Your task to perform on an android device: toggle sleep mode Image 0: 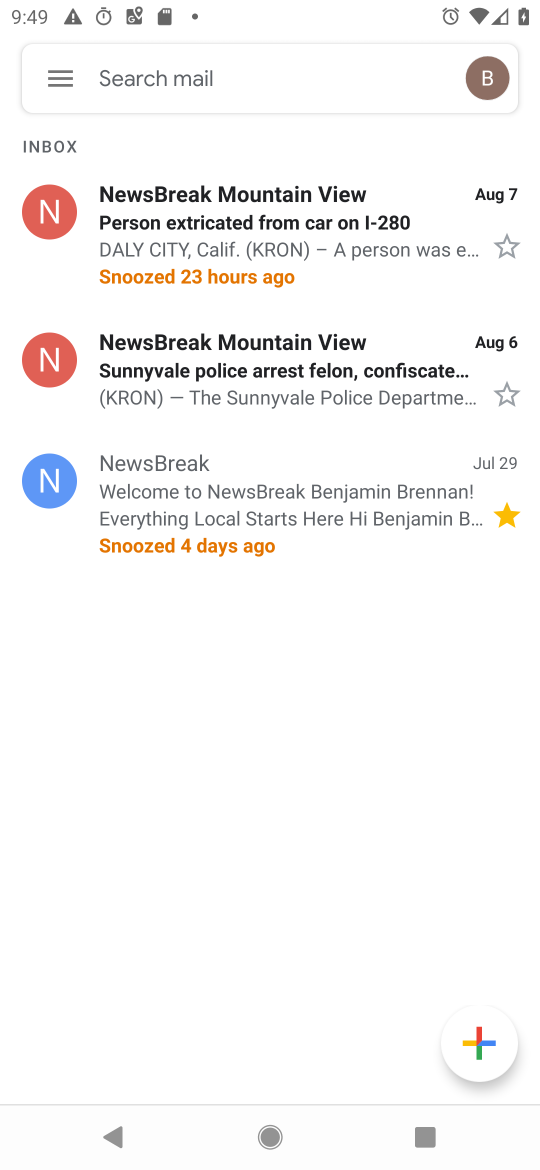
Step 0: drag from (223, 812) to (301, 284)
Your task to perform on an android device: toggle sleep mode Image 1: 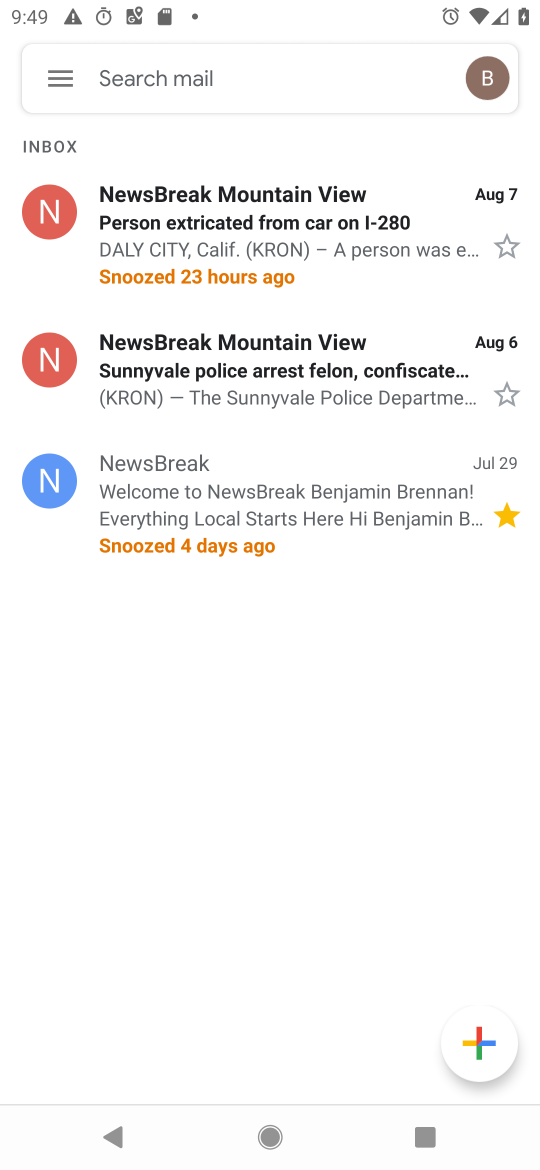
Step 1: press home button
Your task to perform on an android device: toggle sleep mode Image 2: 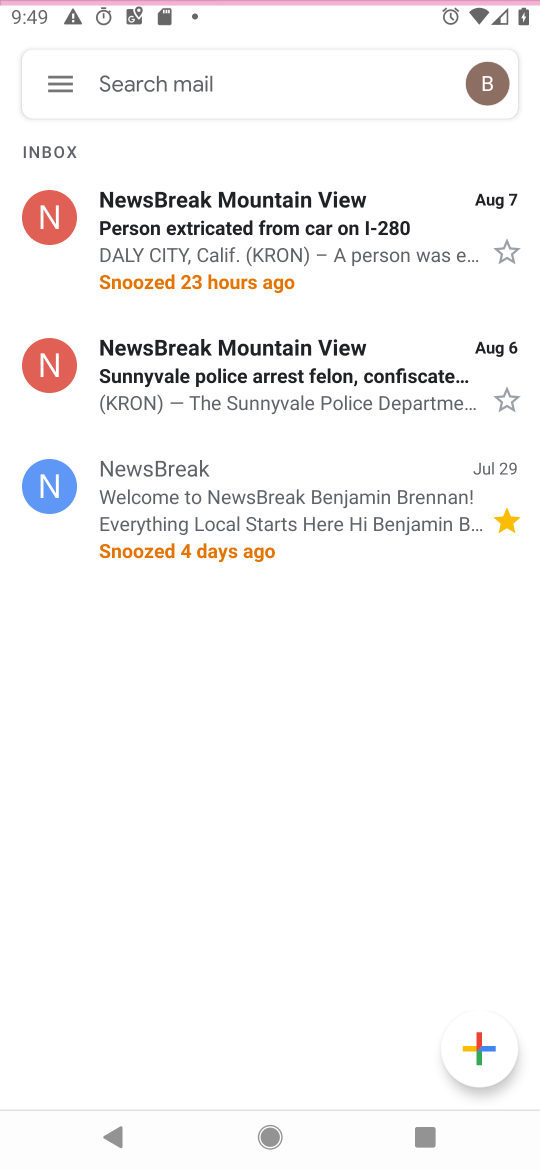
Step 2: drag from (211, 987) to (283, 80)
Your task to perform on an android device: toggle sleep mode Image 3: 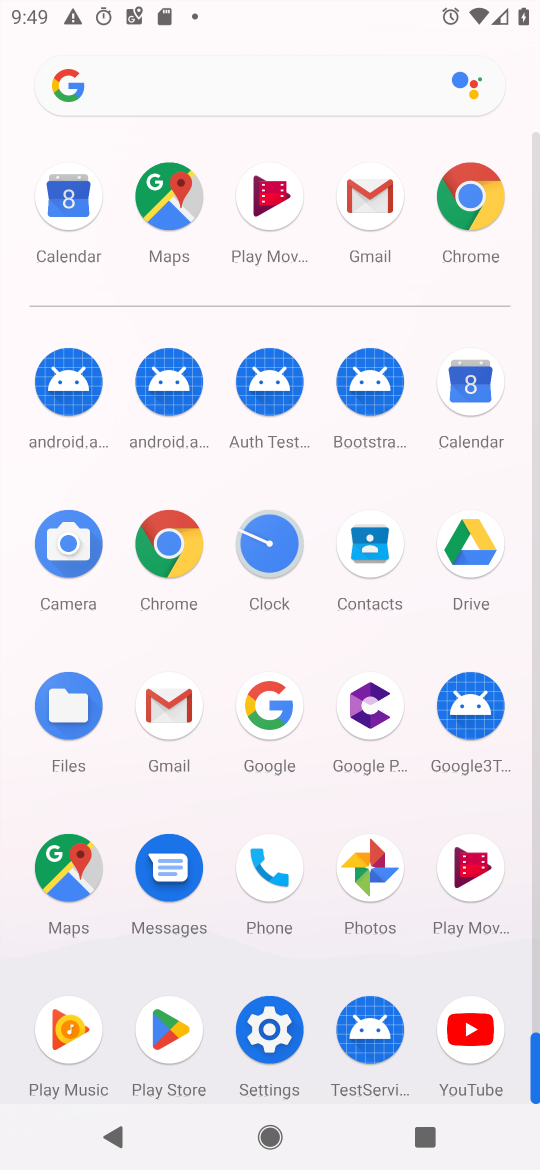
Step 3: drag from (276, 971) to (330, 64)
Your task to perform on an android device: toggle sleep mode Image 4: 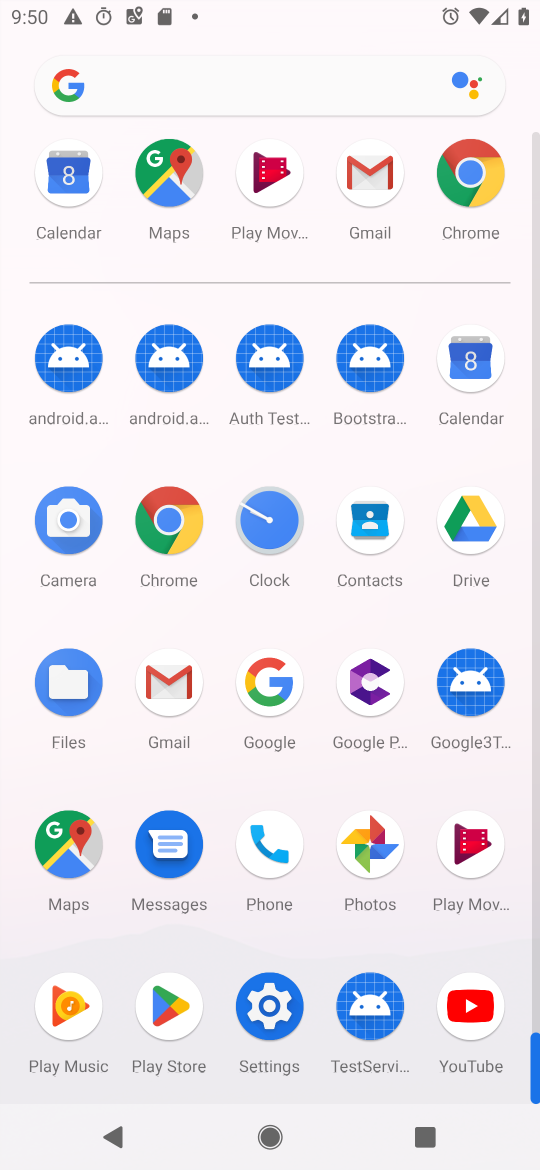
Step 4: click (274, 999)
Your task to perform on an android device: toggle sleep mode Image 5: 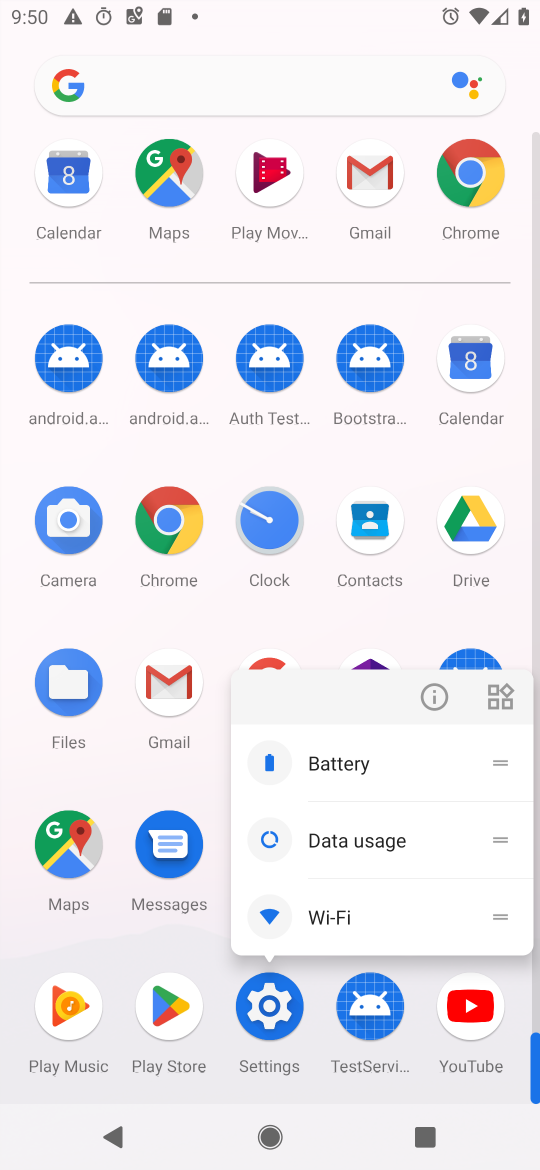
Step 5: click (429, 692)
Your task to perform on an android device: toggle sleep mode Image 6: 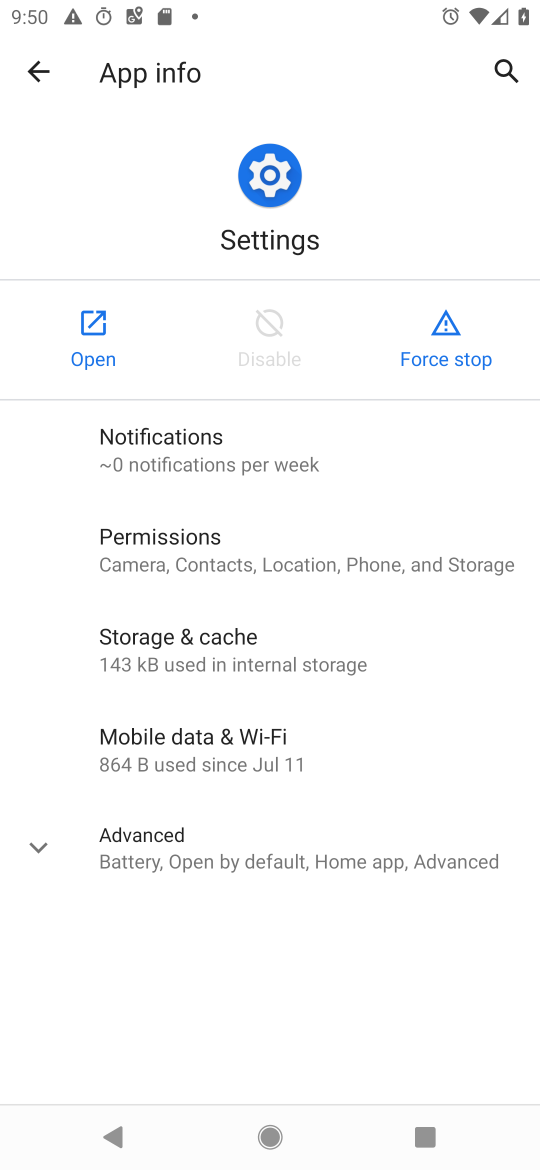
Step 6: click (102, 316)
Your task to perform on an android device: toggle sleep mode Image 7: 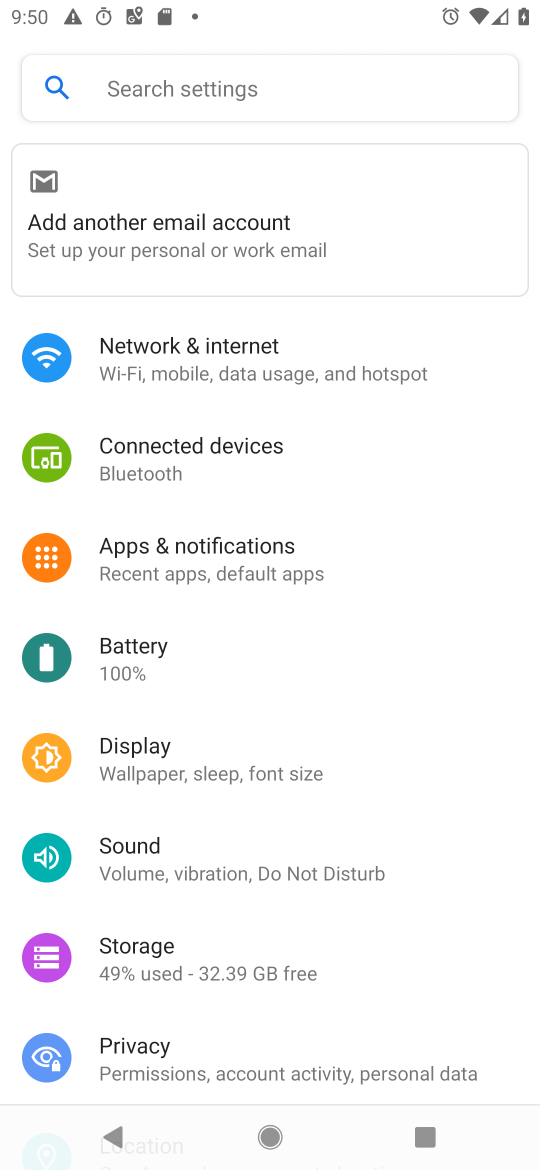
Step 7: drag from (228, 832) to (243, 420)
Your task to perform on an android device: toggle sleep mode Image 8: 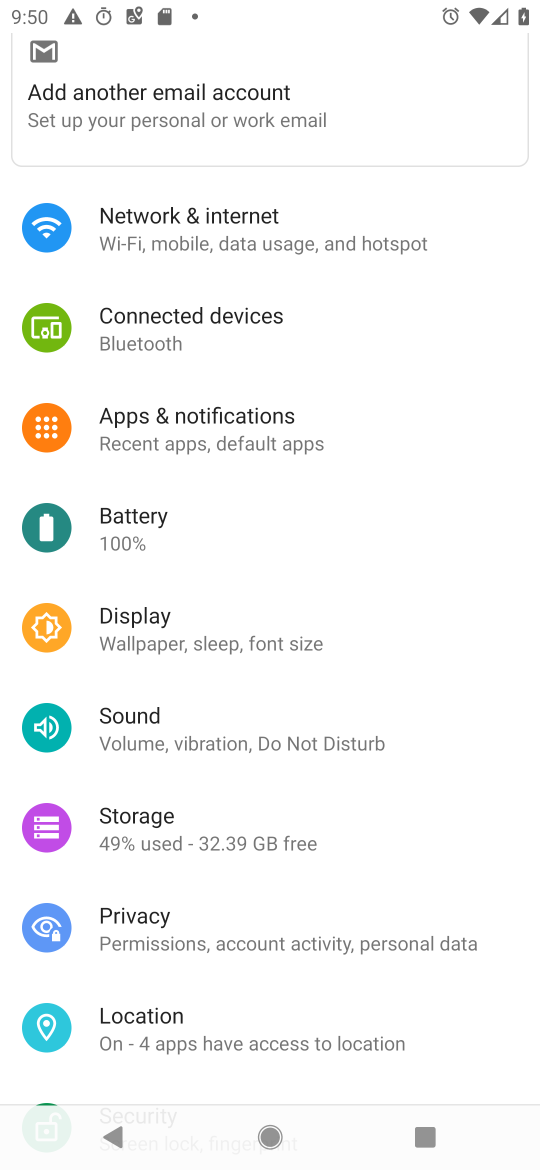
Step 8: click (161, 609)
Your task to perform on an android device: toggle sleep mode Image 9: 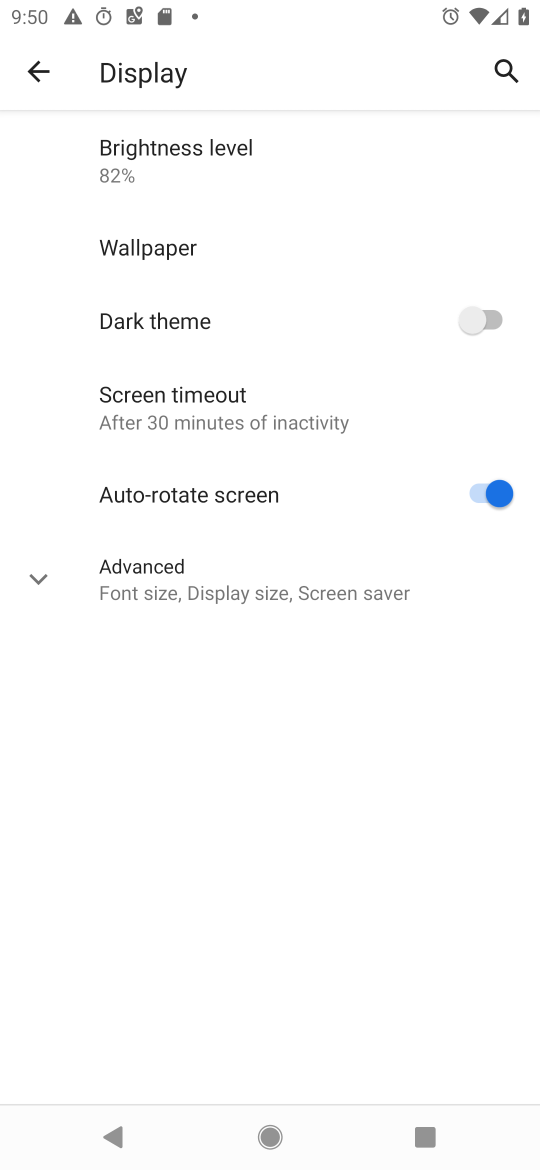
Step 9: click (195, 579)
Your task to perform on an android device: toggle sleep mode Image 10: 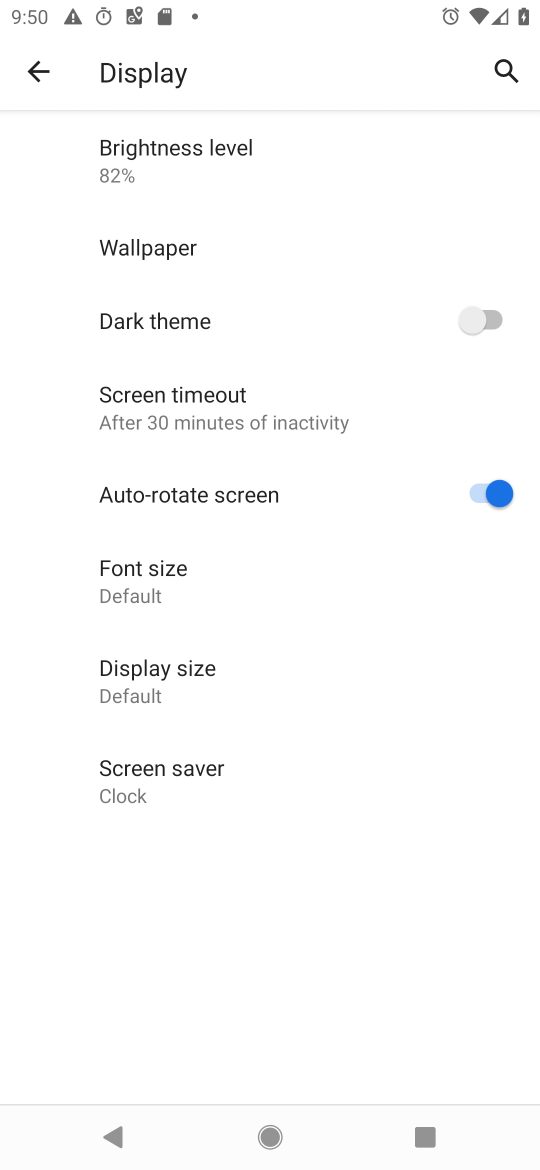
Step 10: drag from (334, 800) to (341, 435)
Your task to perform on an android device: toggle sleep mode Image 11: 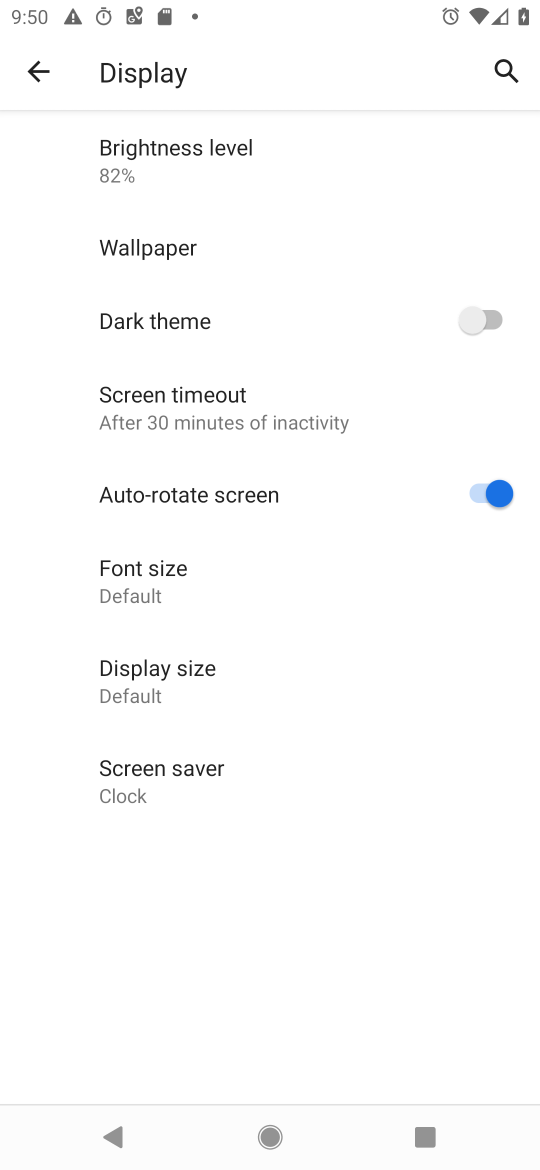
Step 11: drag from (293, 300) to (275, 878)
Your task to perform on an android device: toggle sleep mode Image 12: 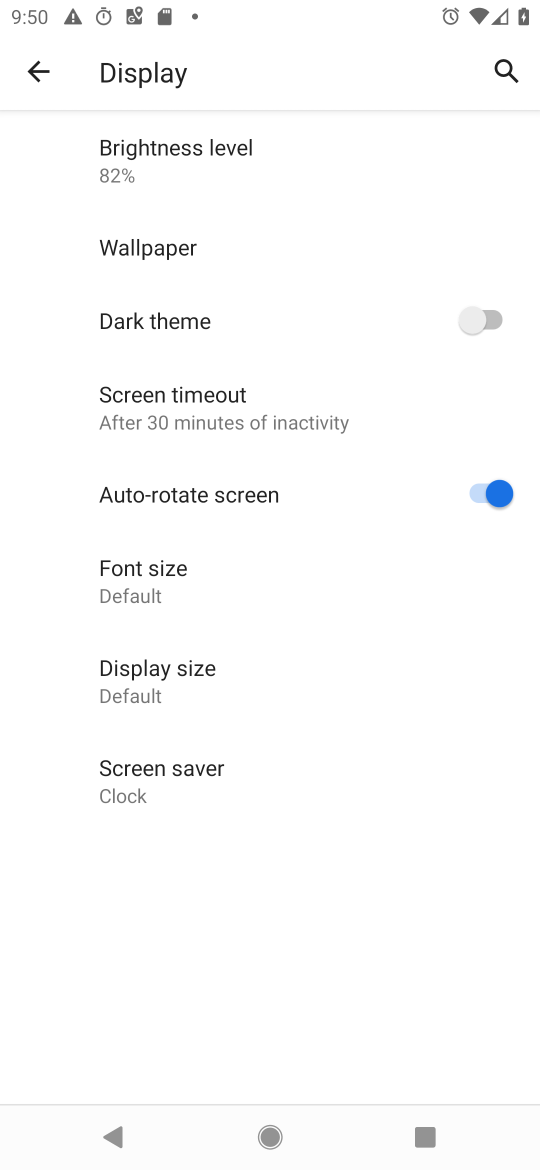
Step 12: click (275, 399)
Your task to perform on an android device: toggle sleep mode Image 13: 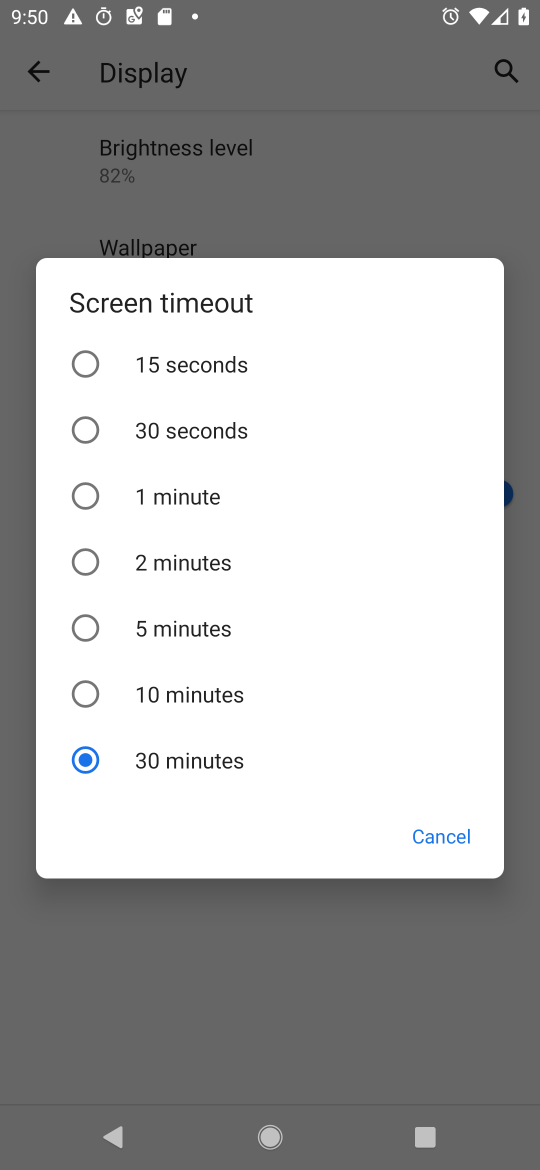
Step 13: click (91, 350)
Your task to perform on an android device: toggle sleep mode Image 14: 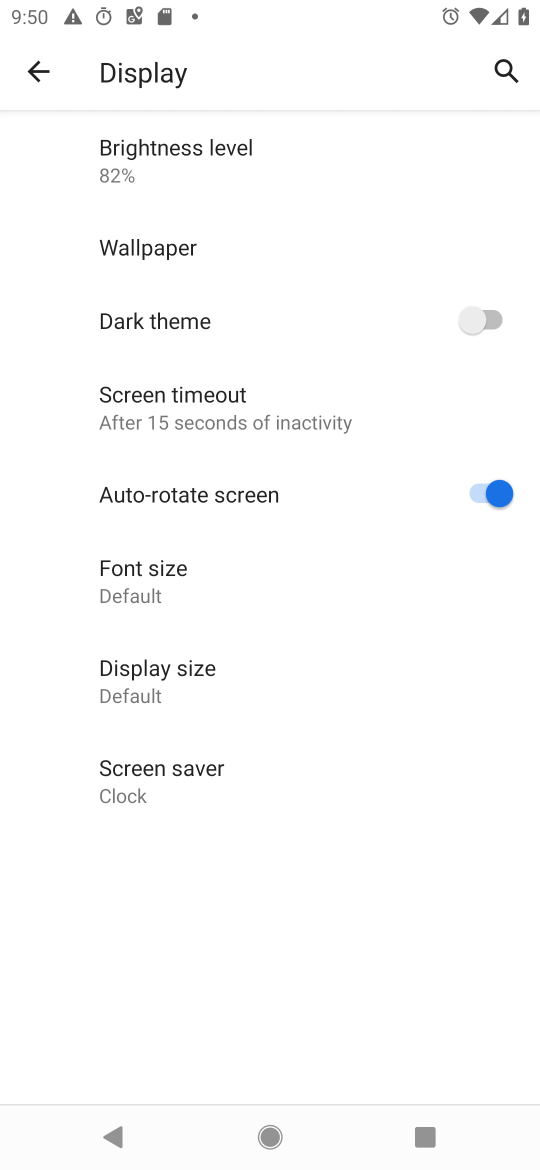
Step 14: task complete